Your task to perform on an android device: check data usage Image 0: 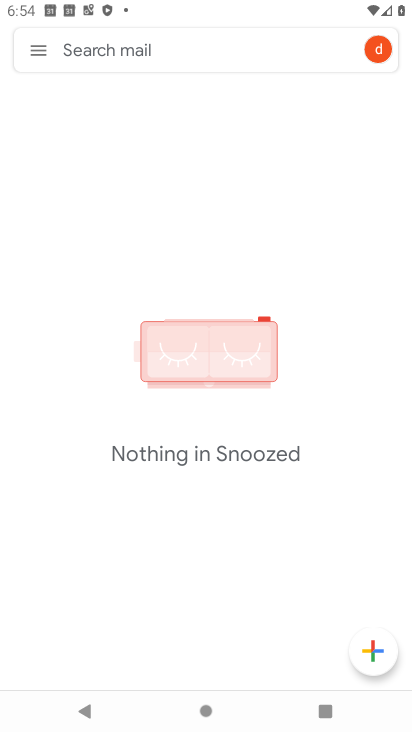
Step 0: press home button
Your task to perform on an android device: check data usage Image 1: 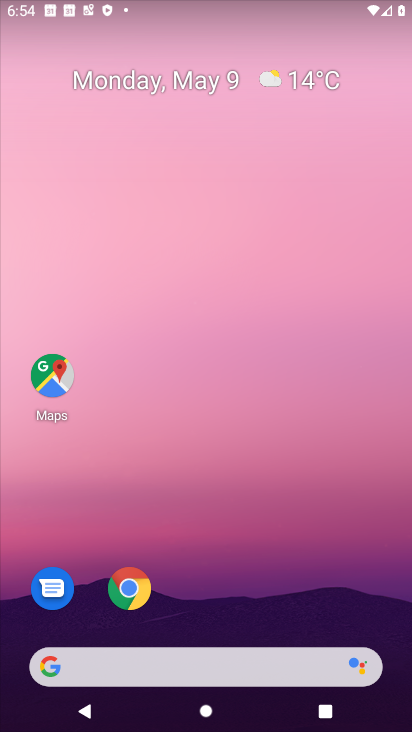
Step 1: drag from (286, 614) to (133, 1)
Your task to perform on an android device: check data usage Image 2: 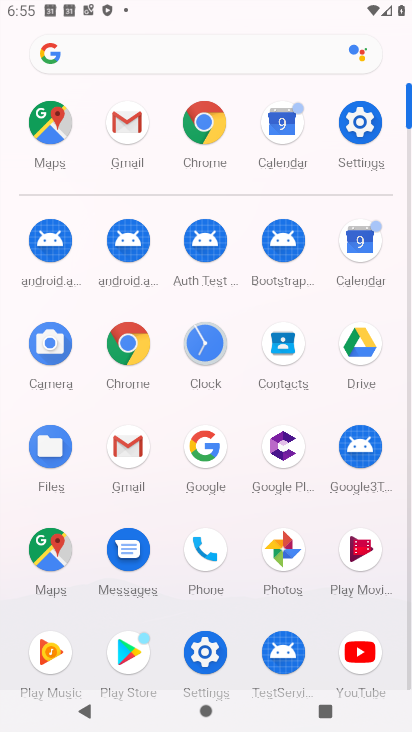
Step 2: click (201, 642)
Your task to perform on an android device: check data usage Image 3: 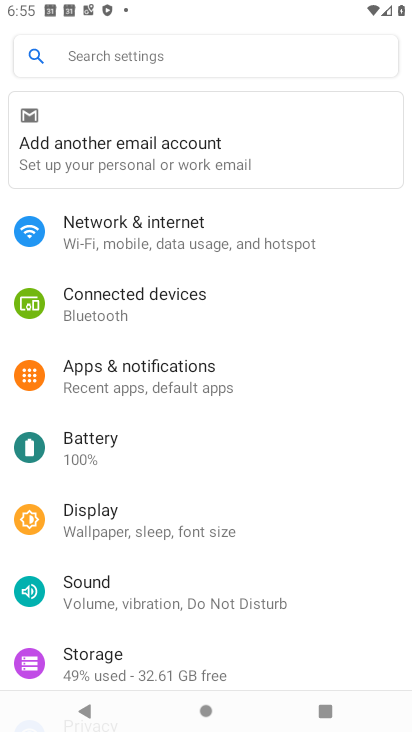
Step 3: click (161, 220)
Your task to perform on an android device: check data usage Image 4: 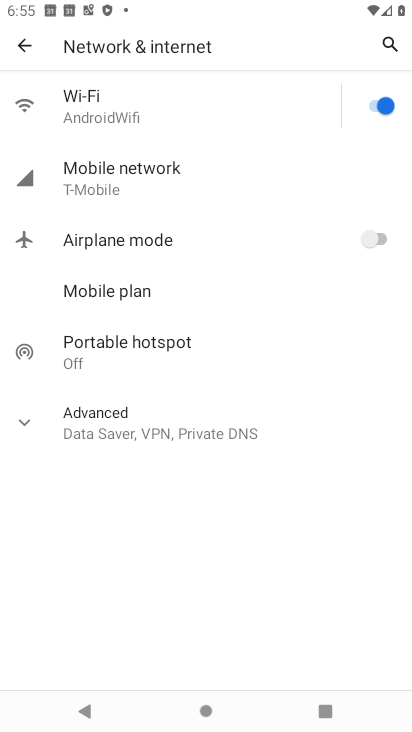
Step 4: click (152, 175)
Your task to perform on an android device: check data usage Image 5: 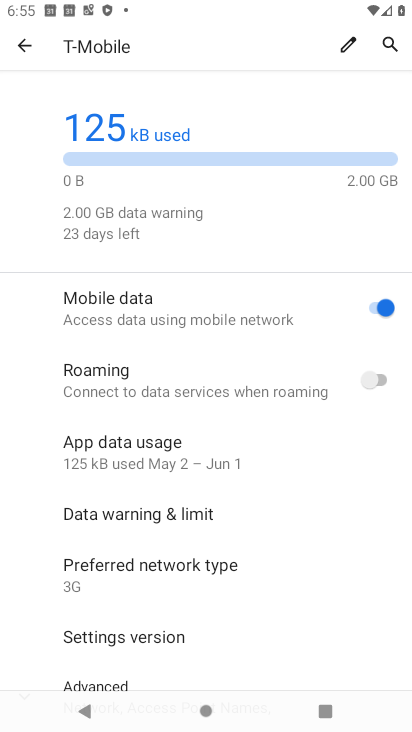
Step 5: click (164, 444)
Your task to perform on an android device: check data usage Image 6: 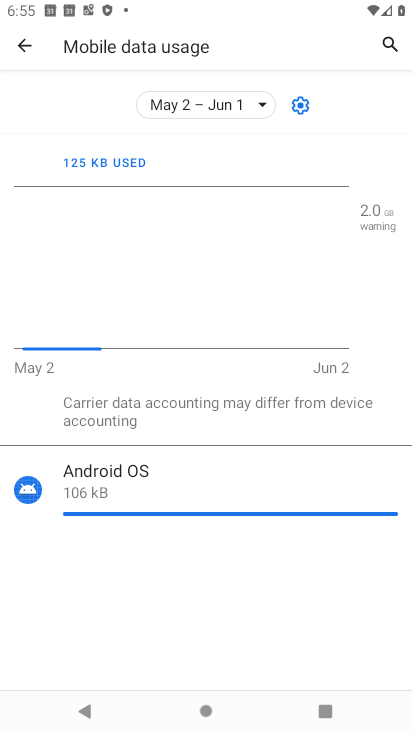
Step 6: task complete